Your task to perform on an android device: Open Android settings Image 0: 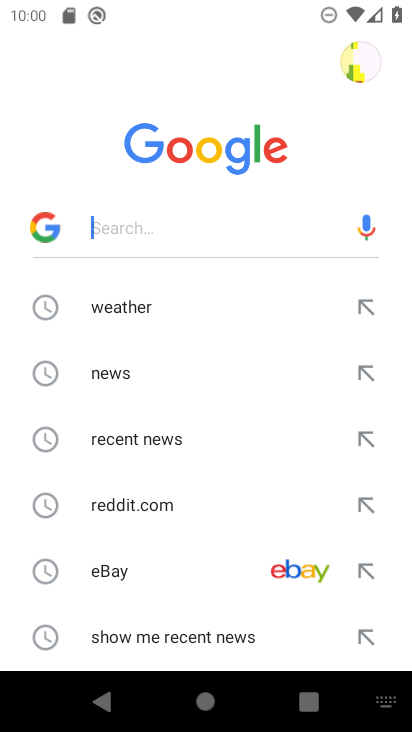
Step 0: press home button
Your task to perform on an android device: Open Android settings Image 1: 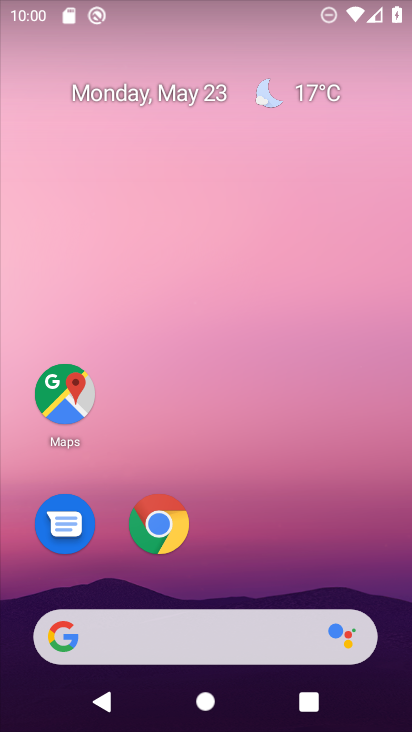
Step 1: drag from (236, 566) to (265, 185)
Your task to perform on an android device: Open Android settings Image 2: 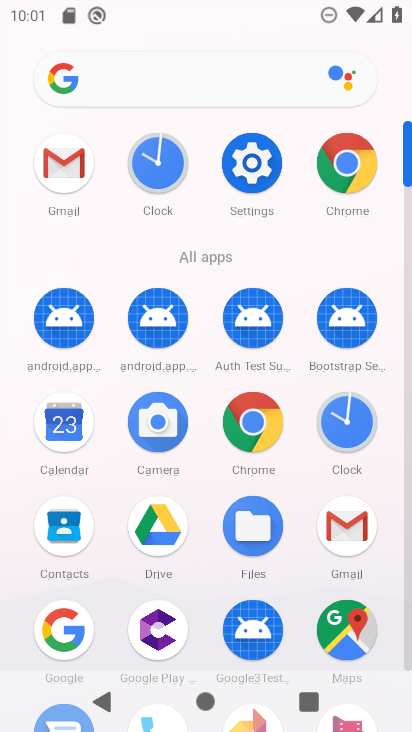
Step 2: click (266, 184)
Your task to perform on an android device: Open Android settings Image 3: 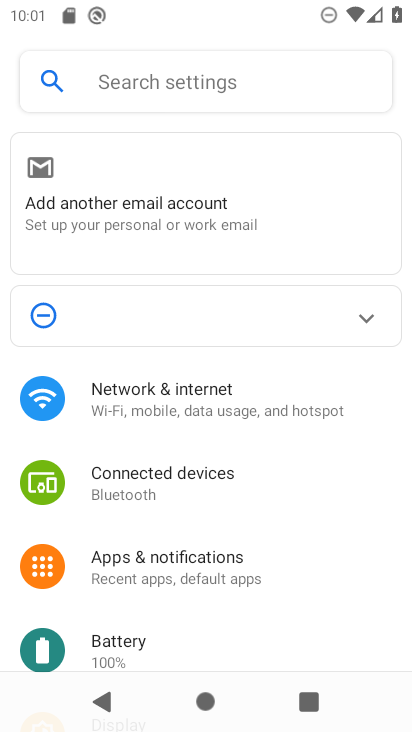
Step 3: task complete